Your task to perform on an android device: Search for "razer deathadder" on costco.com, select the first entry, add it to the cart, then select checkout. Image 0: 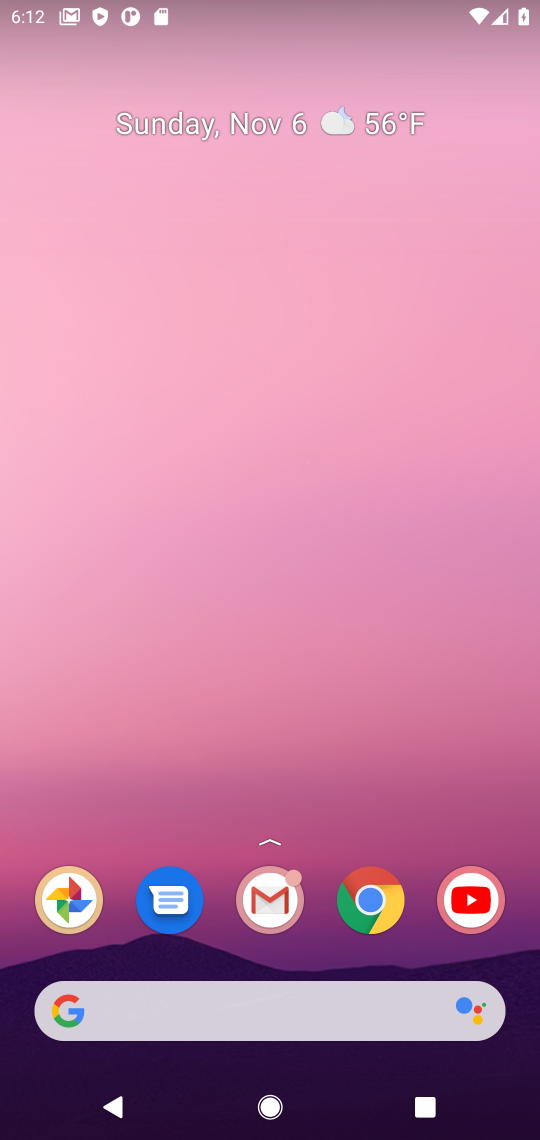
Step 0: drag from (324, 947) to (427, 176)
Your task to perform on an android device: Search for "razer deathadder" on costco.com, select the first entry, add it to the cart, then select checkout. Image 1: 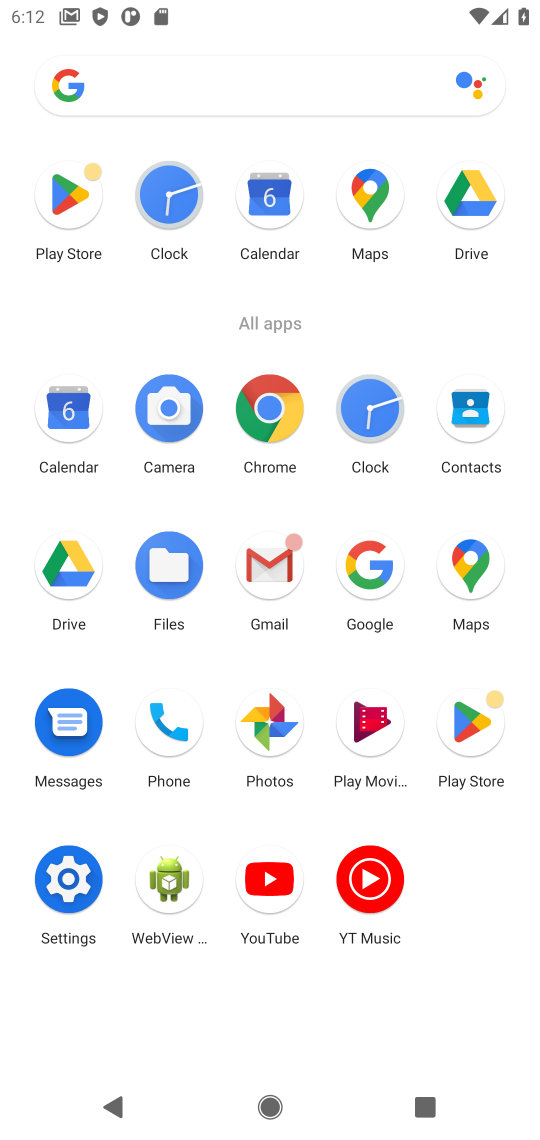
Step 1: click (258, 413)
Your task to perform on an android device: Search for "razer deathadder" on costco.com, select the first entry, add it to the cart, then select checkout. Image 2: 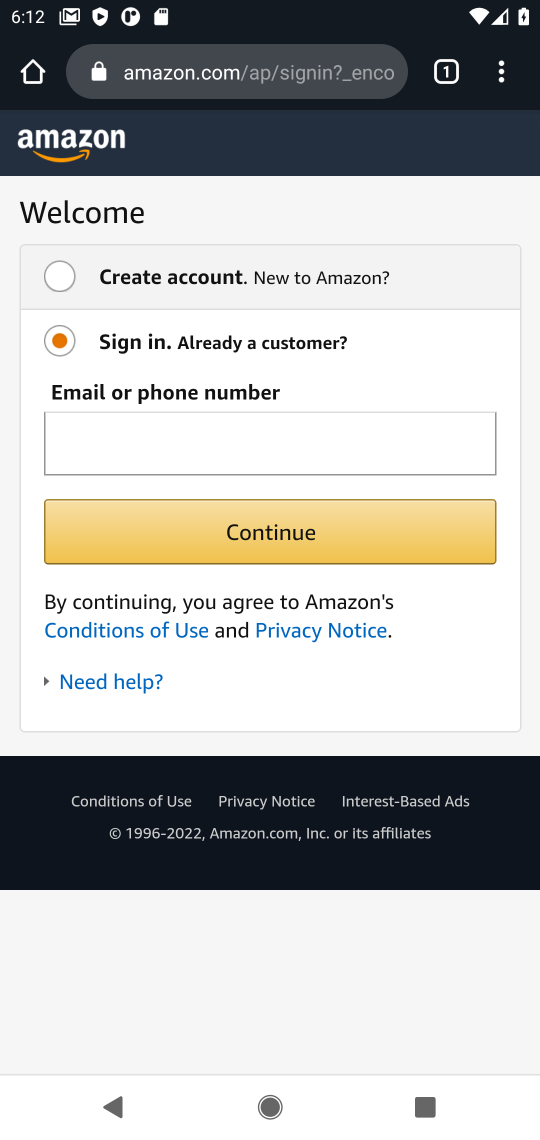
Step 2: click (257, 56)
Your task to perform on an android device: Search for "razer deathadder" on costco.com, select the first entry, add it to the cart, then select checkout. Image 3: 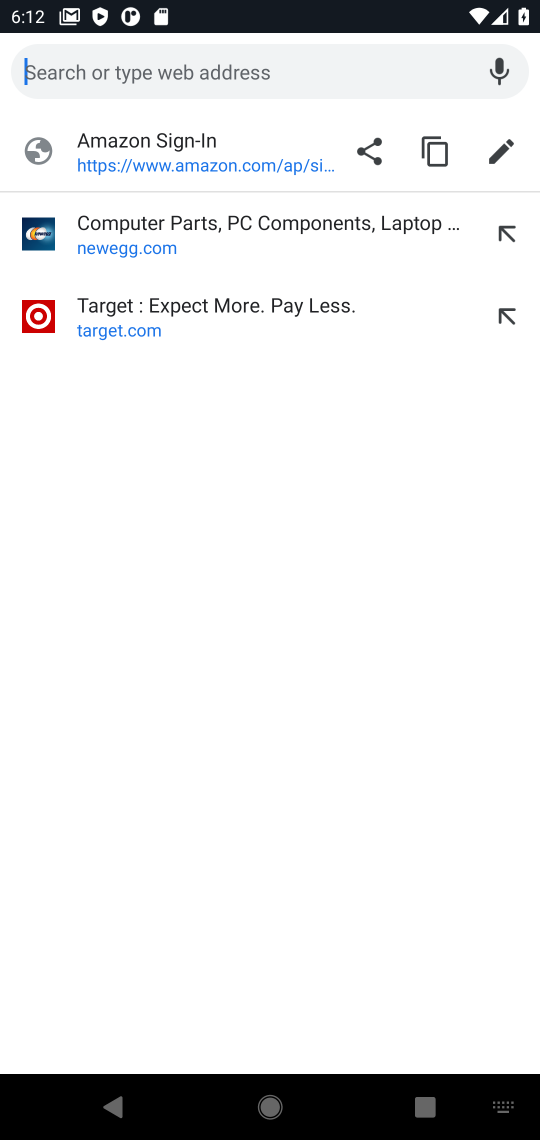
Step 3: type "costco.com"
Your task to perform on an android device: Search for "razer deathadder" on costco.com, select the first entry, add it to the cart, then select checkout. Image 4: 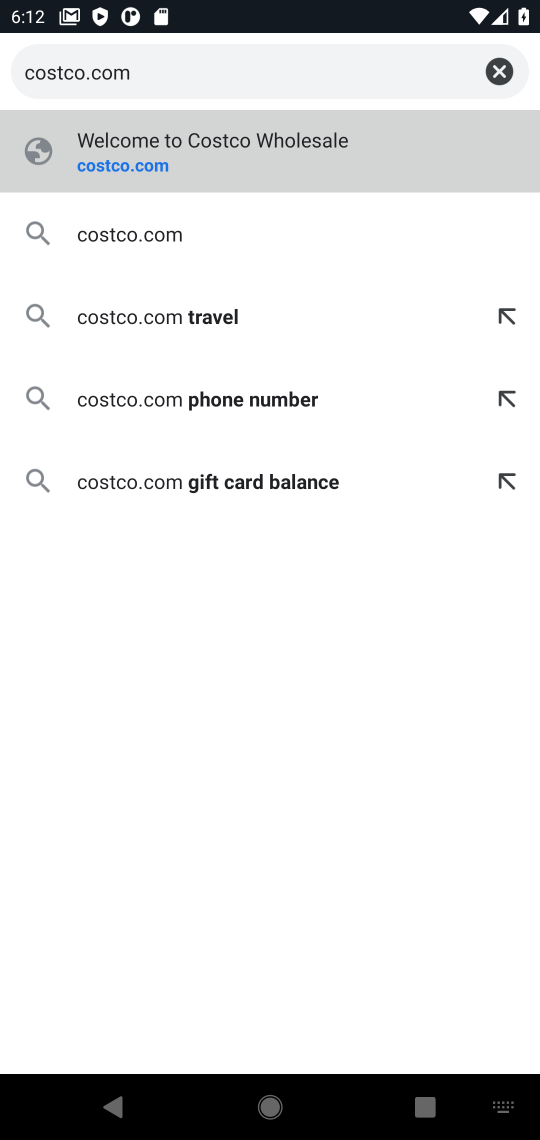
Step 4: press enter
Your task to perform on an android device: Search for "razer deathadder" on costco.com, select the first entry, add it to the cart, then select checkout. Image 5: 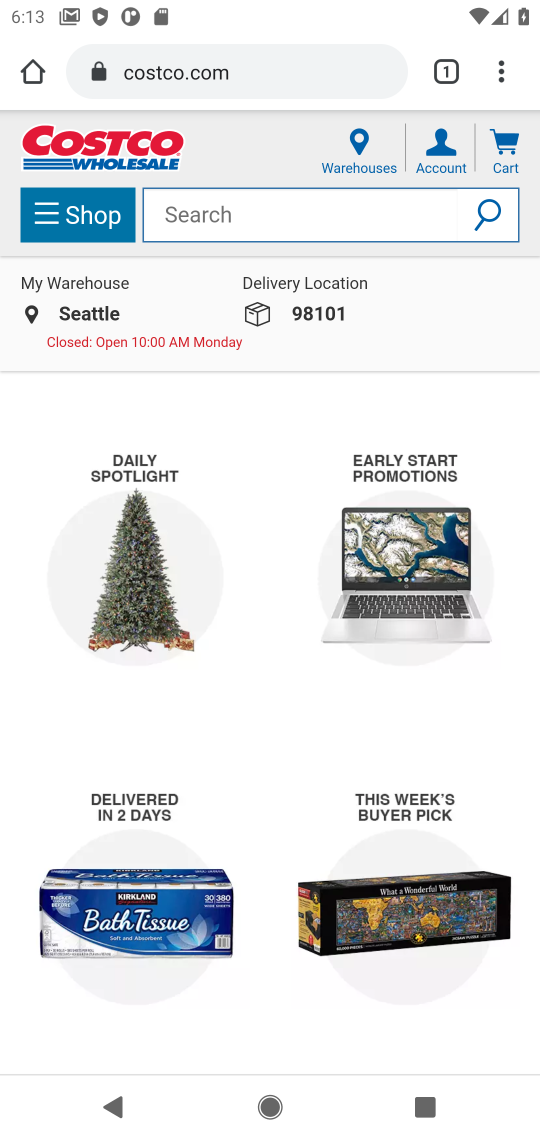
Step 5: click (257, 214)
Your task to perform on an android device: Search for "razer deathadder" on costco.com, select the first entry, add it to the cart, then select checkout. Image 6: 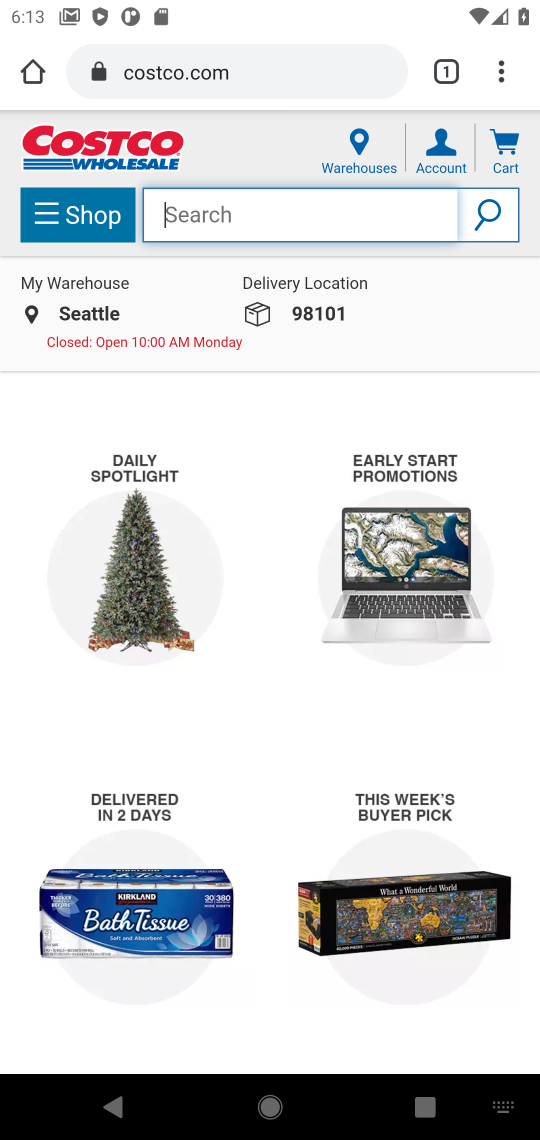
Step 6: type "razer deathadder"
Your task to perform on an android device: Search for "razer deathadder" on costco.com, select the first entry, add it to the cart, then select checkout. Image 7: 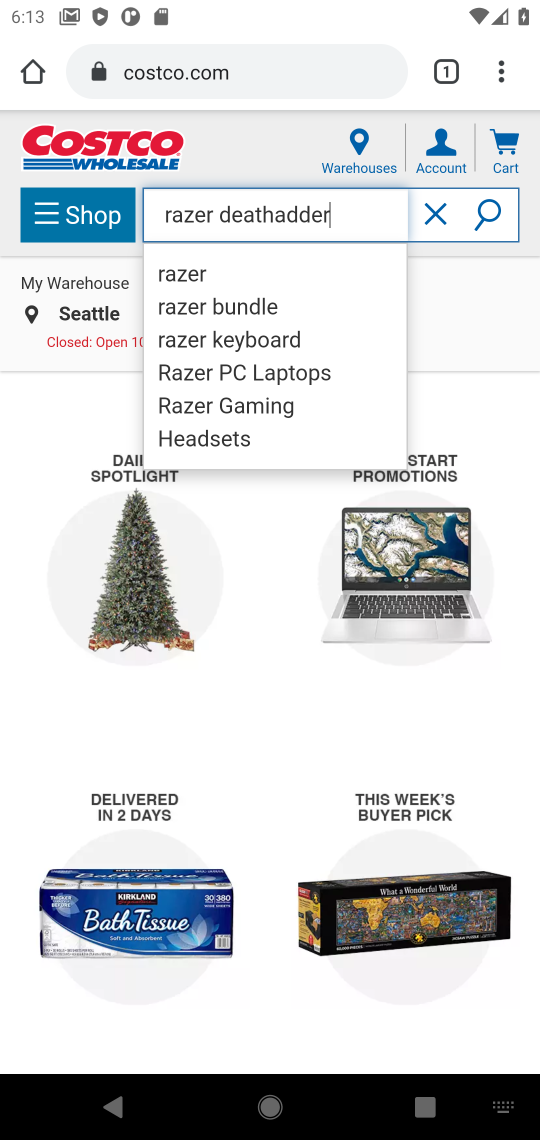
Step 7: press enter
Your task to perform on an android device: Search for "razer deathadder" on costco.com, select the first entry, add it to the cart, then select checkout. Image 8: 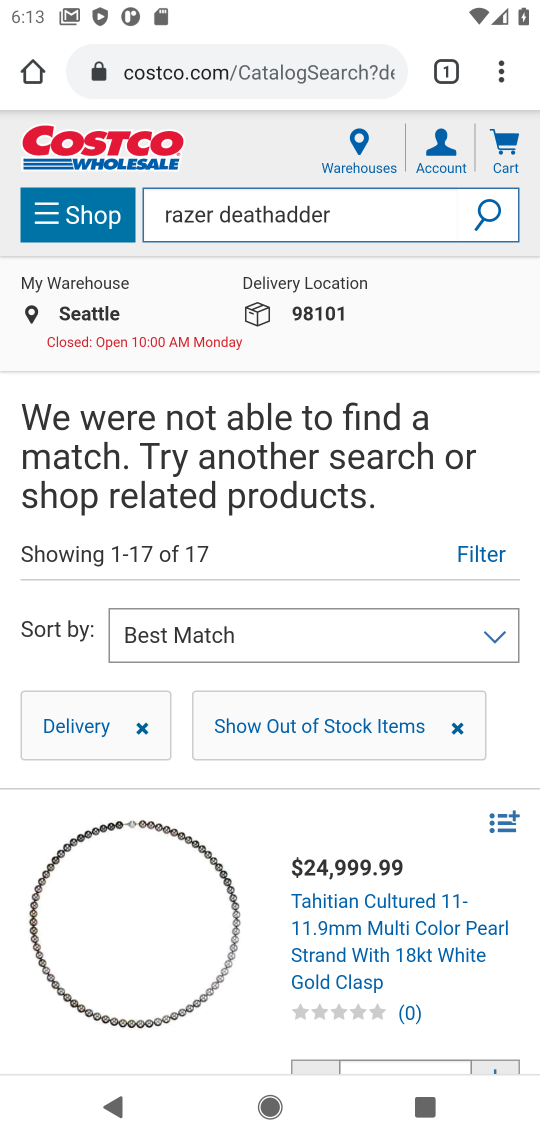
Step 8: task complete